Your task to perform on an android device: create a new album in the google photos Image 0: 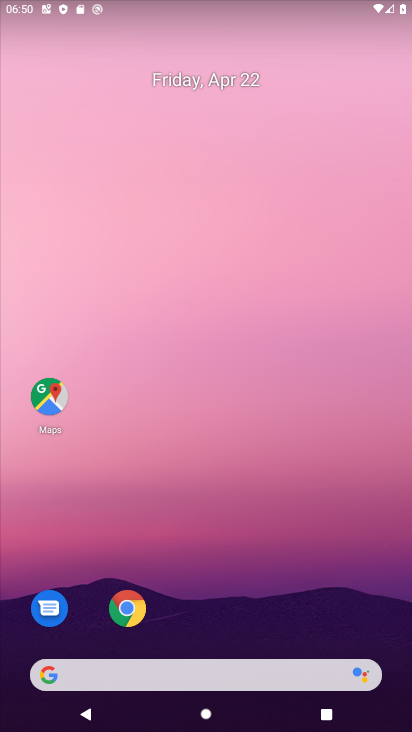
Step 0: click (146, 107)
Your task to perform on an android device: create a new album in the google photos Image 1: 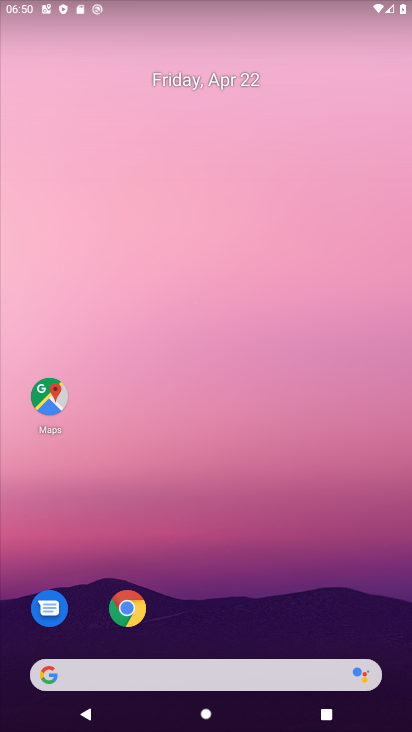
Step 1: drag from (211, 476) to (197, 11)
Your task to perform on an android device: create a new album in the google photos Image 2: 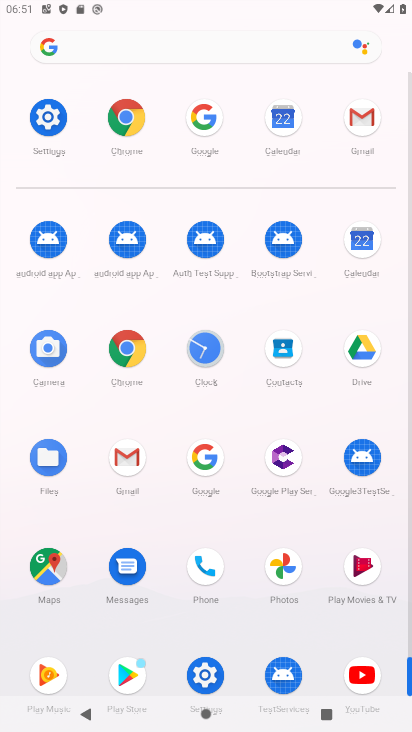
Step 2: click (285, 566)
Your task to perform on an android device: create a new album in the google photos Image 3: 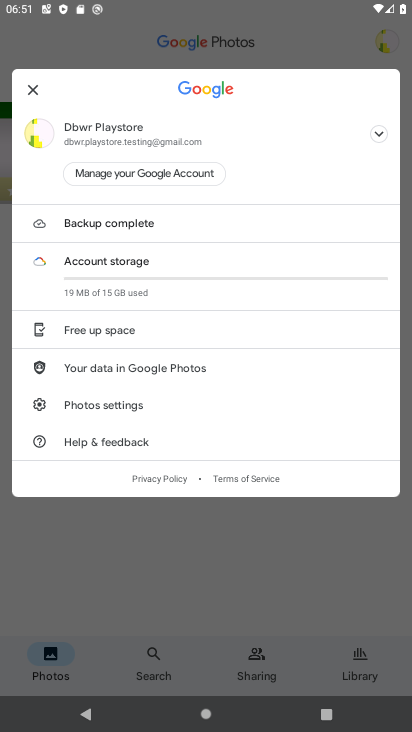
Step 3: press back button
Your task to perform on an android device: create a new album in the google photos Image 4: 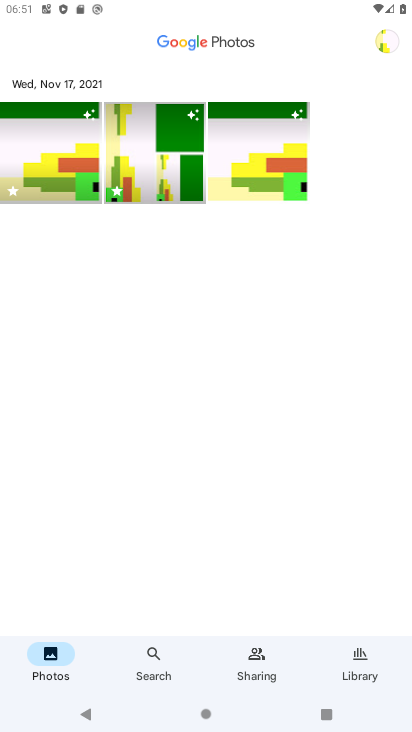
Step 4: press back button
Your task to perform on an android device: create a new album in the google photos Image 5: 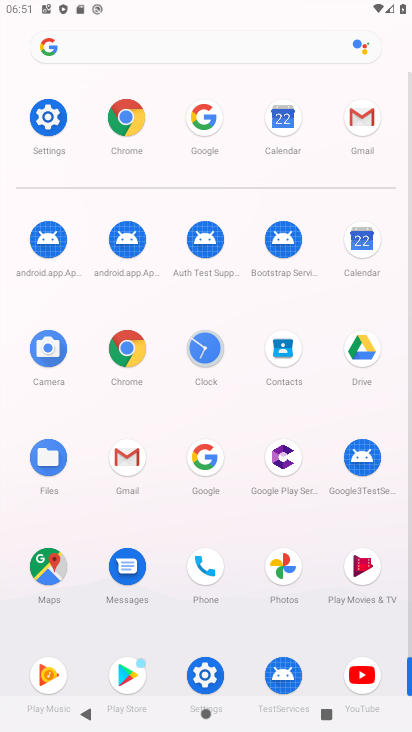
Step 5: click (284, 570)
Your task to perform on an android device: create a new album in the google photos Image 6: 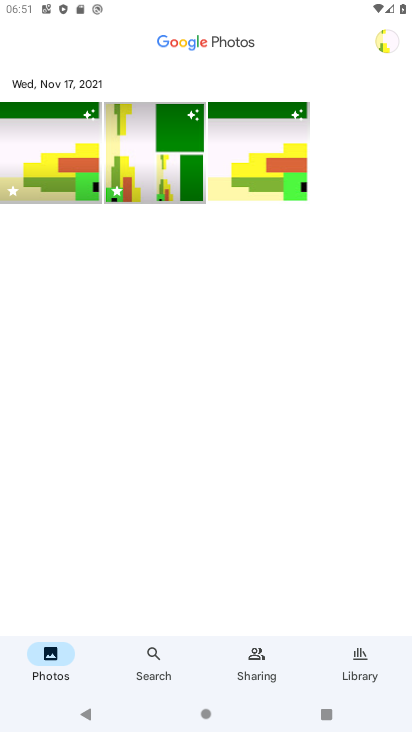
Step 6: click (53, 663)
Your task to perform on an android device: create a new album in the google photos Image 7: 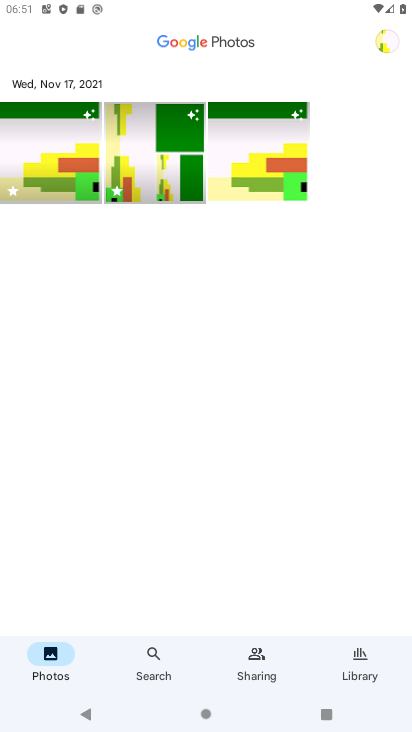
Step 7: click (377, 666)
Your task to perform on an android device: create a new album in the google photos Image 8: 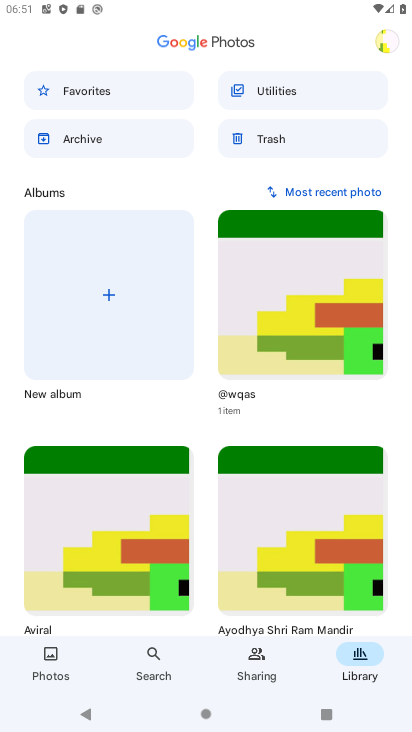
Step 8: click (108, 292)
Your task to perform on an android device: create a new album in the google photos Image 9: 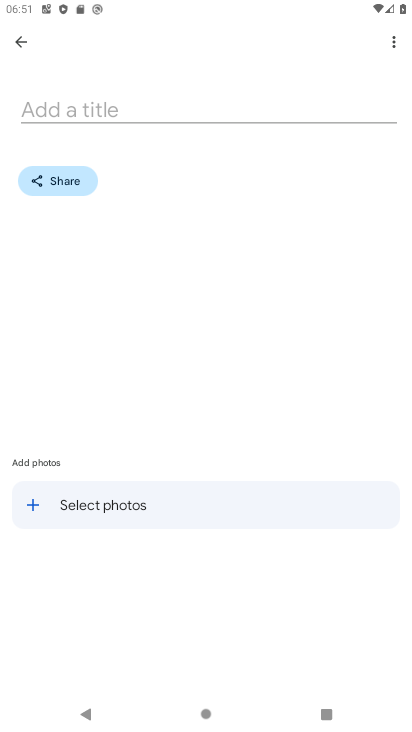
Step 9: click (89, 102)
Your task to perform on an android device: create a new album in the google photos Image 10: 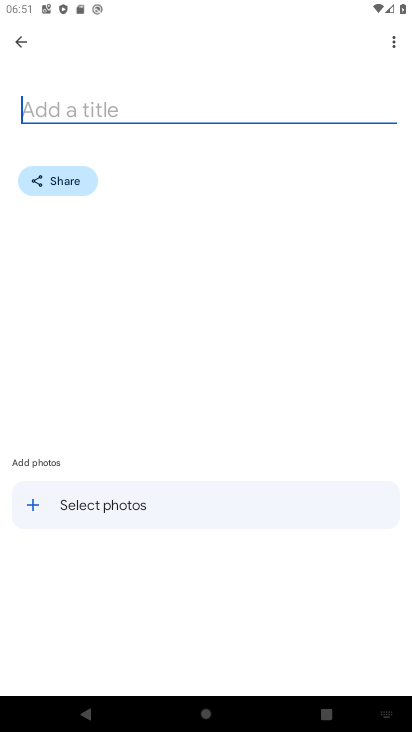
Step 10: type "Abi"
Your task to perform on an android device: create a new album in the google photos Image 11: 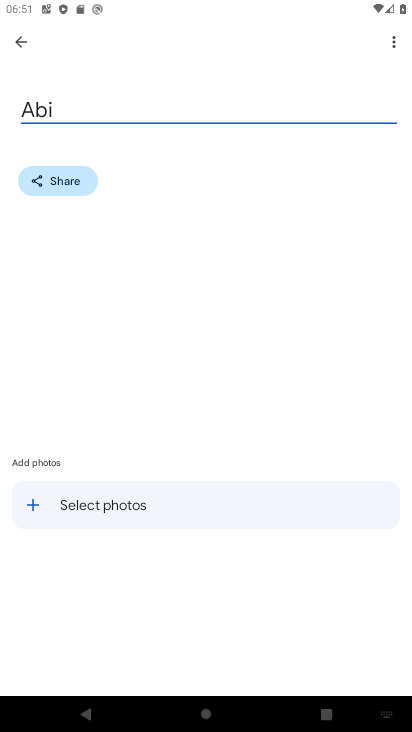
Step 11: click (123, 508)
Your task to perform on an android device: create a new album in the google photos Image 12: 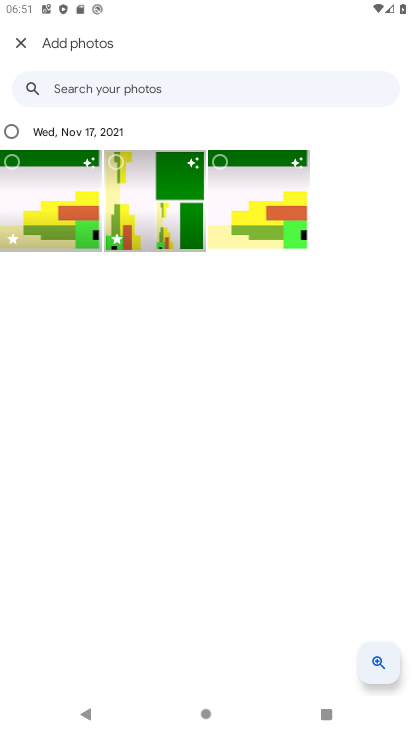
Step 12: click (61, 193)
Your task to perform on an android device: create a new album in the google photos Image 13: 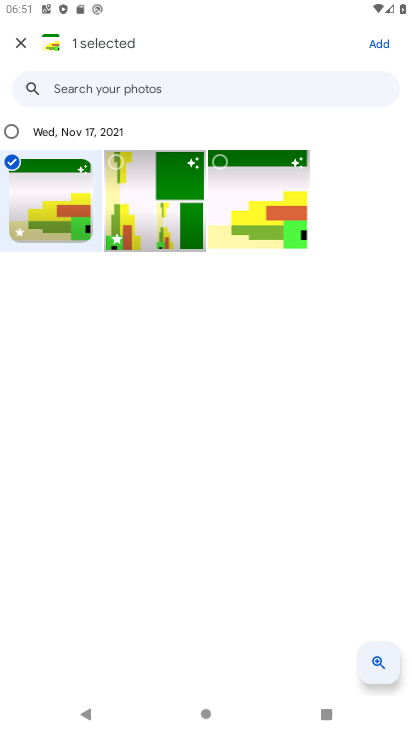
Step 13: click (385, 46)
Your task to perform on an android device: create a new album in the google photos Image 14: 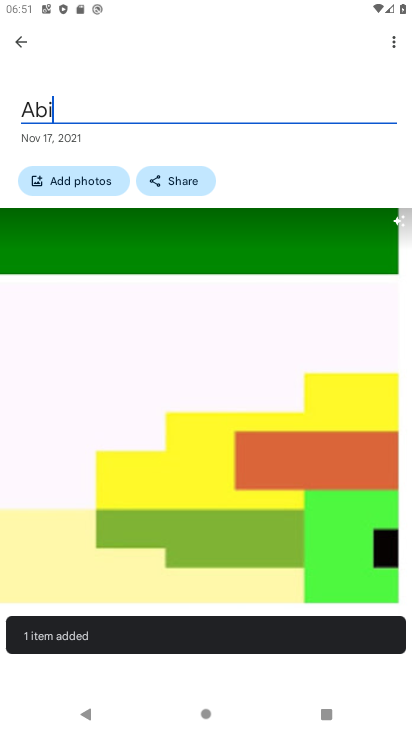
Step 14: task complete